Your task to perform on an android device: Search for seafood restaurants on Google Maps Image 0: 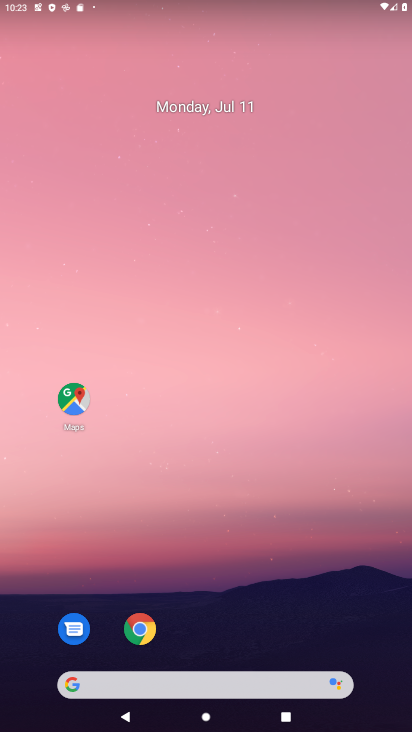
Step 0: click (78, 415)
Your task to perform on an android device: Search for seafood restaurants on Google Maps Image 1: 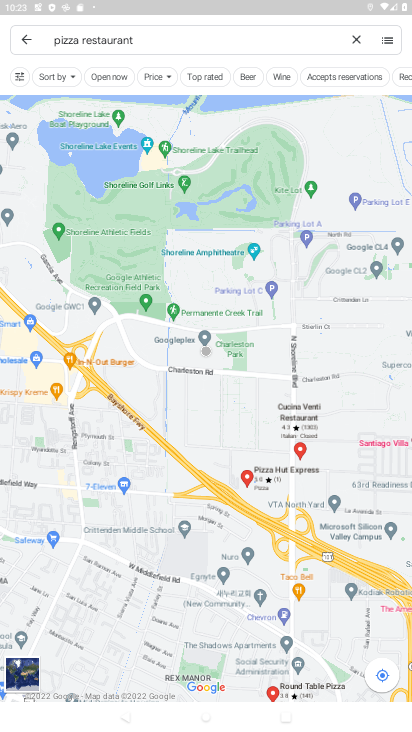
Step 1: click (209, 38)
Your task to perform on an android device: Search for seafood restaurants on Google Maps Image 2: 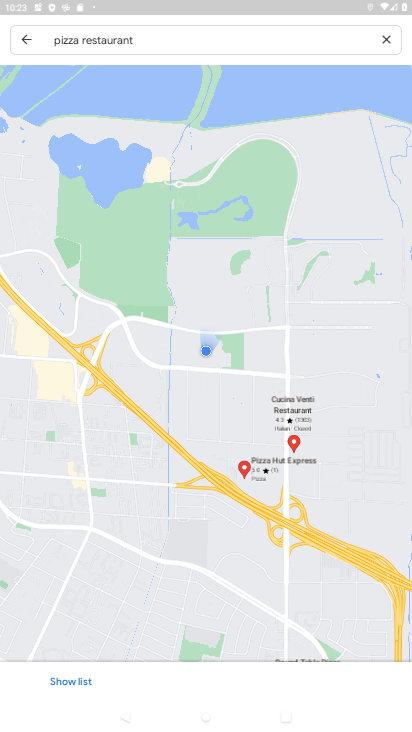
Step 2: click (361, 41)
Your task to perform on an android device: Search for seafood restaurants on Google Maps Image 3: 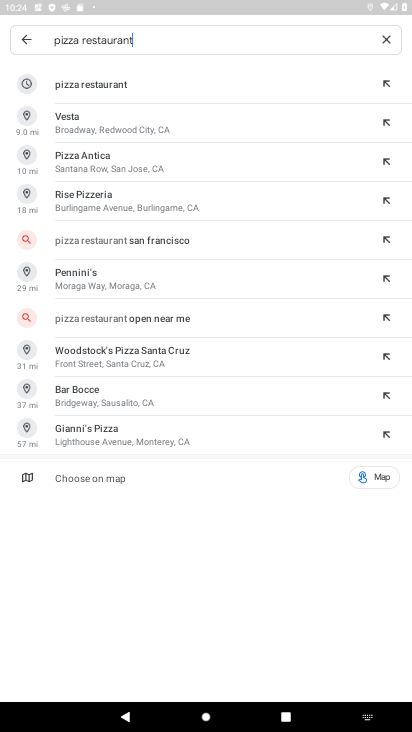
Step 3: click (393, 38)
Your task to perform on an android device: Search for seafood restaurants on Google Maps Image 4: 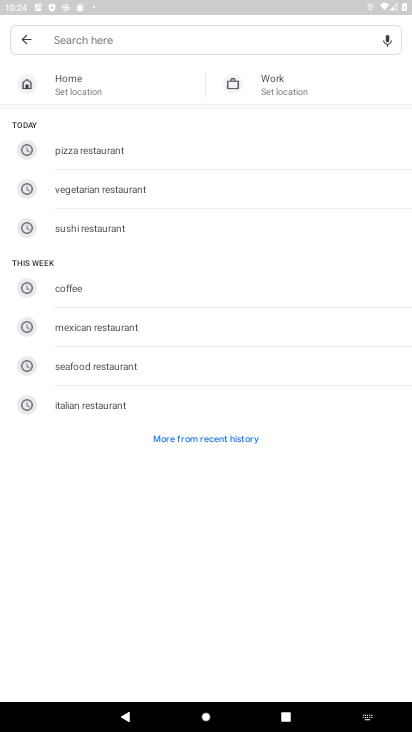
Step 4: click (191, 37)
Your task to perform on an android device: Search for seafood restaurants on Google Maps Image 5: 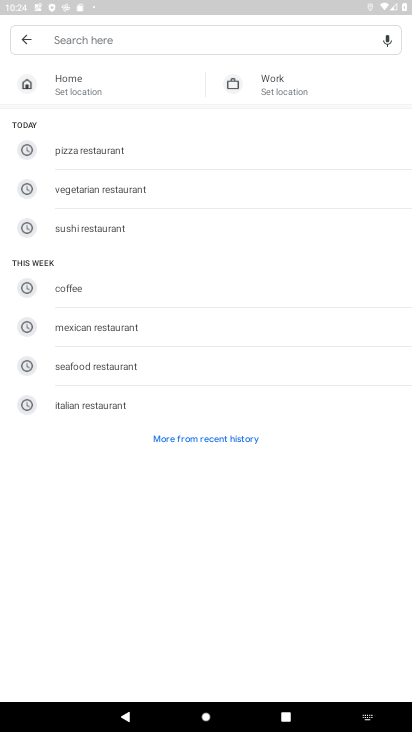
Step 5: click (180, 363)
Your task to perform on an android device: Search for seafood restaurants on Google Maps Image 6: 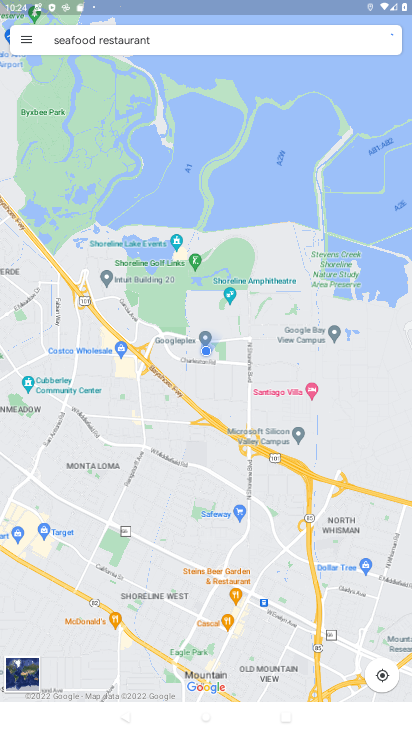
Step 6: task complete